Your task to perform on an android device: Go to battery settings Image 0: 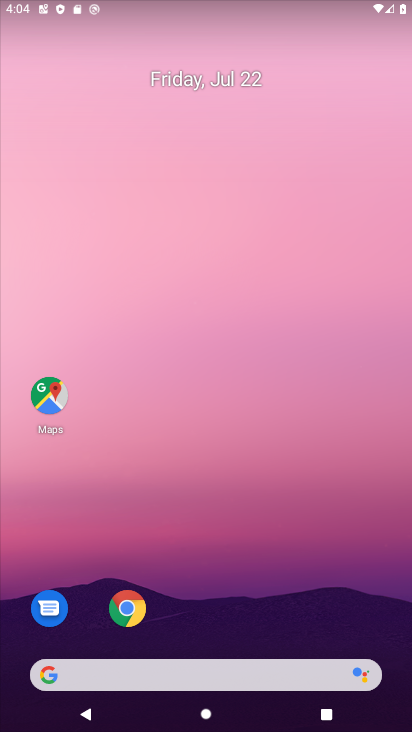
Step 0: drag from (222, 725) to (201, 526)
Your task to perform on an android device: Go to battery settings Image 1: 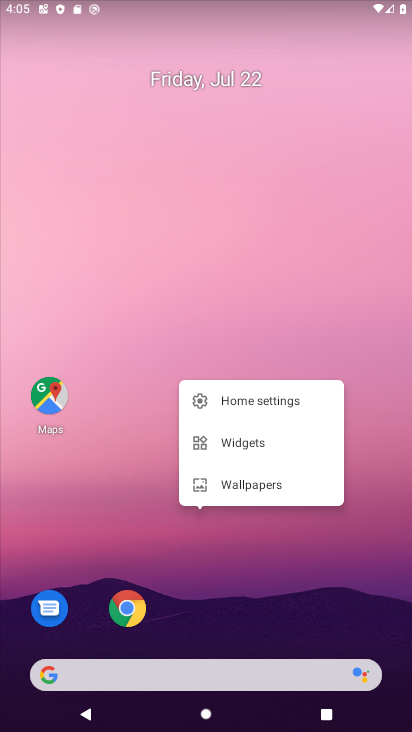
Step 1: click (240, 265)
Your task to perform on an android device: Go to battery settings Image 2: 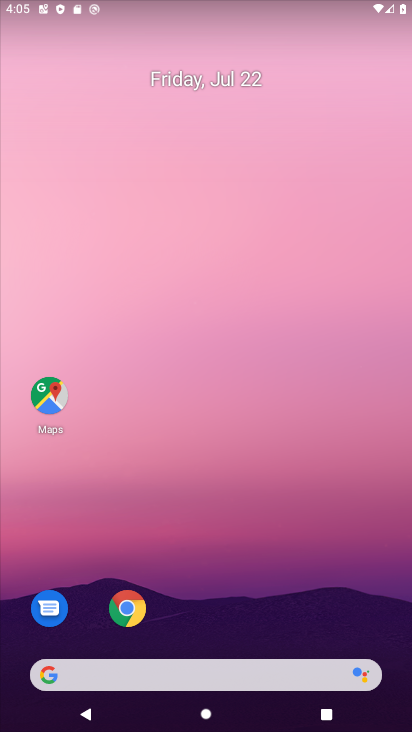
Step 2: drag from (231, 730) to (232, 178)
Your task to perform on an android device: Go to battery settings Image 3: 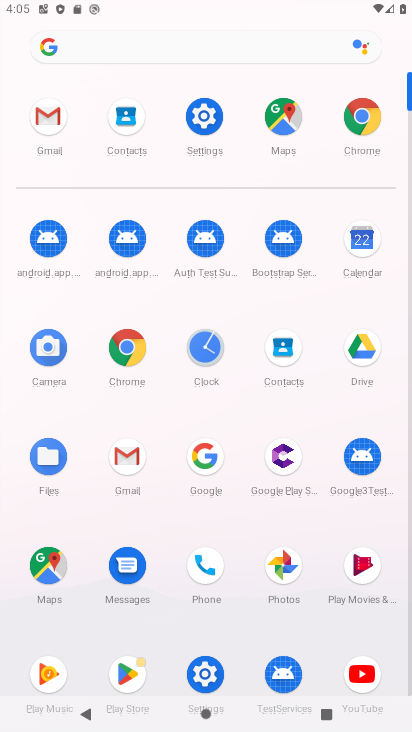
Step 3: click (208, 111)
Your task to perform on an android device: Go to battery settings Image 4: 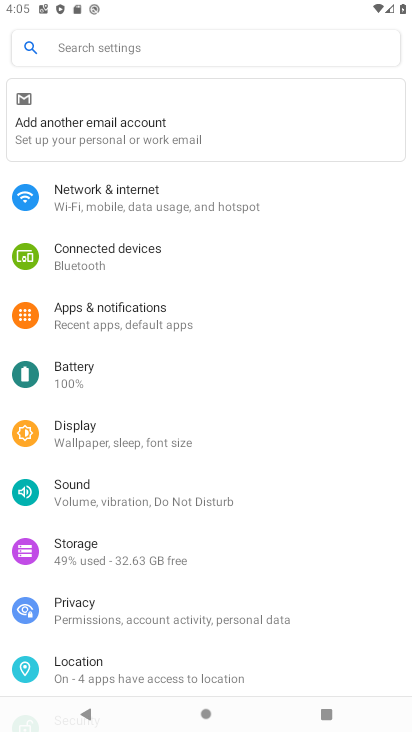
Step 4: click (72, 380)
Your task to perform on an android device: Go to battery settings Image 5: 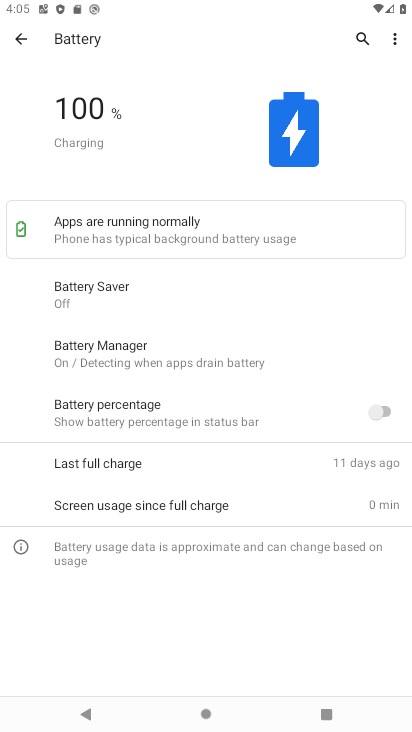
Step 5: task complete